Your task to perform on an android device: check android version Image 0: 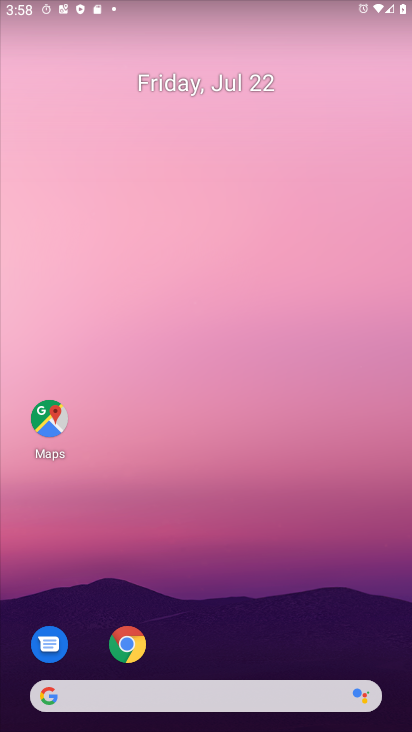
Step 0: drag from (266, 640) to (238, 140)
Your task to perform on an android device: check android version Image 1: 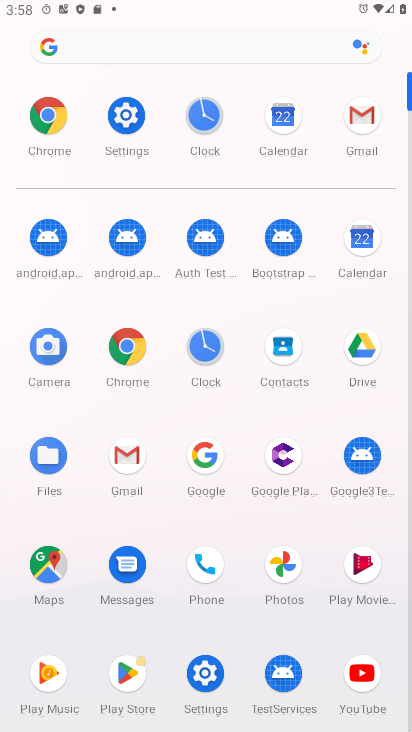
Step 1: click (131, 111)
Your task to perform on an android device: check android version Image 2: 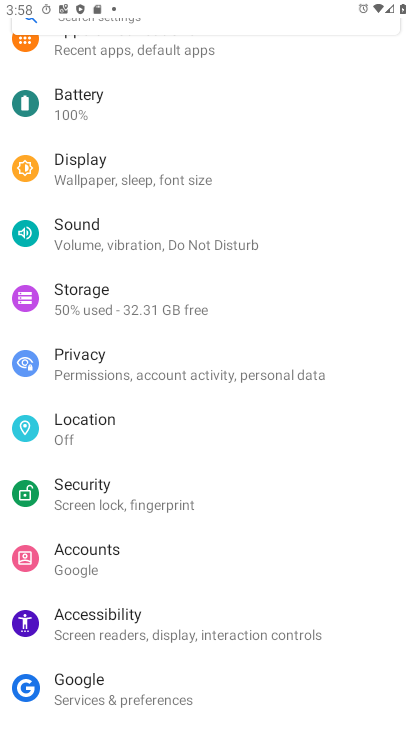
Step 2: drag from (201, 674) to (218, 145)
Your task to perform on an android device: check android version Image 3: 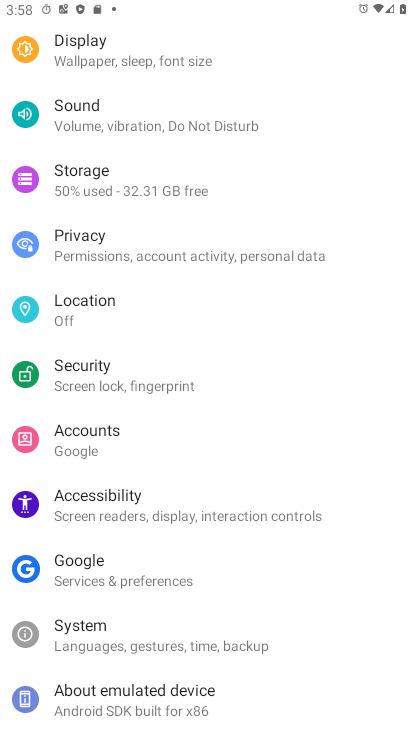
Step 3: drag from (163, 671) to (175, 280)
Your task to perform on an android device: check android version Image 4: 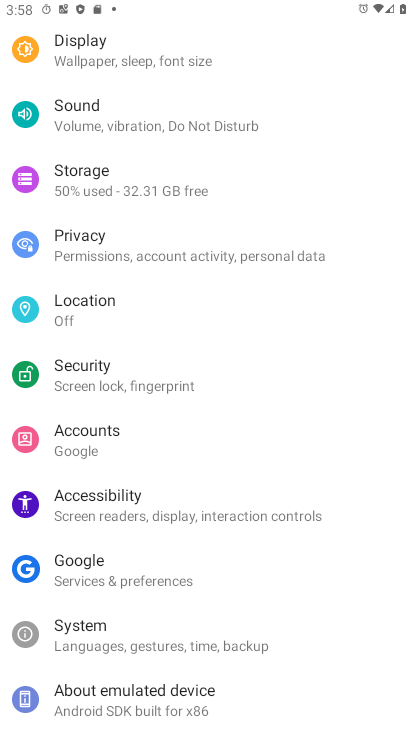
Step 4: click (128, 705)
Your task to perform on an android device: check android version Image 5: 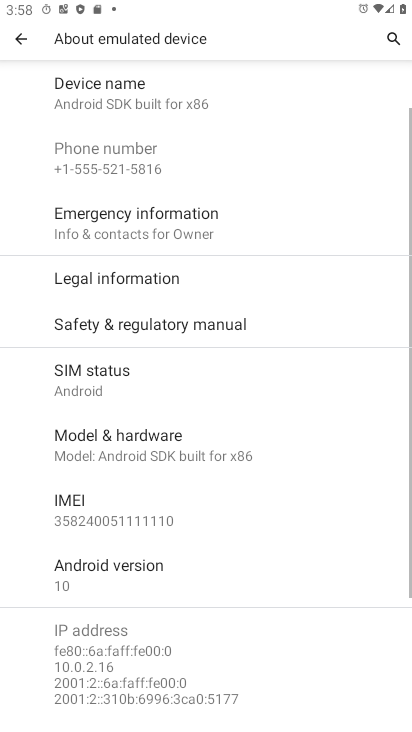
Step 5: click (96, 579)
Your task to perform on an android device: check android version Image 6: 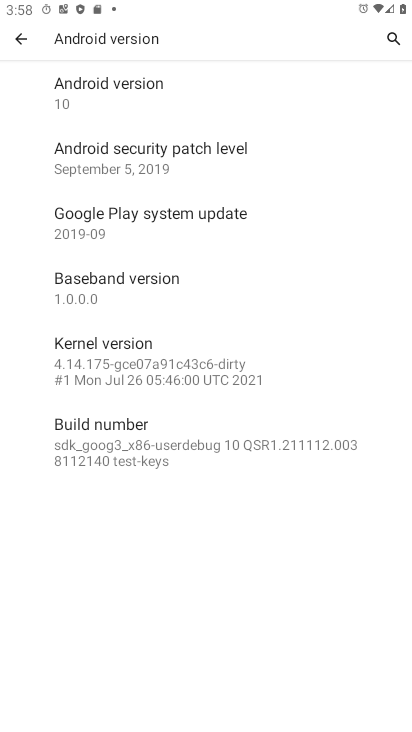
Step 6: task complete